Your task to perform on an android device: Add "energizer triple a" to the cart on newegg.com, then select checkout. Image 0: 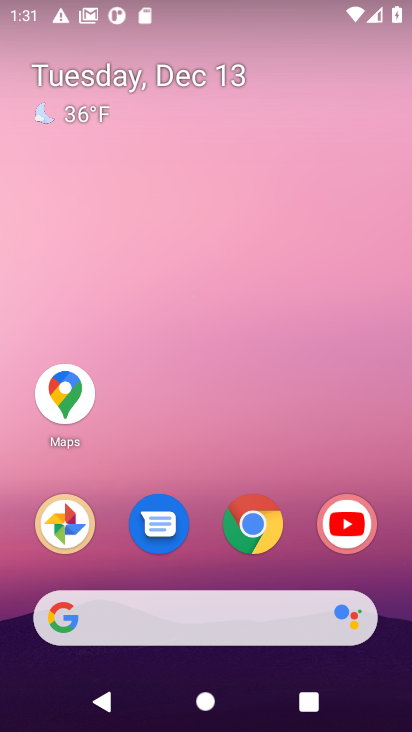
Step 0: click (248, 529)
Your task to perform on an android device: Add "energizer triple a" to the cart on newegg.com, then select checkout. Image 1: 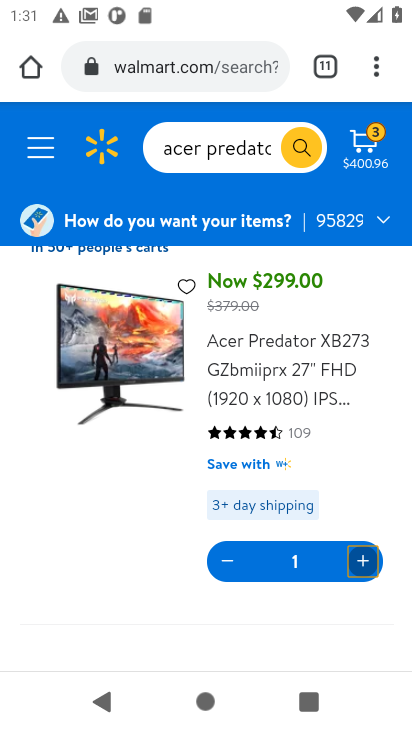
Step 1: click (191, 68)
Your task to perform on an android device: Add "energizer triple a" to the cart on newegg.com, then select checkout. Image 2: 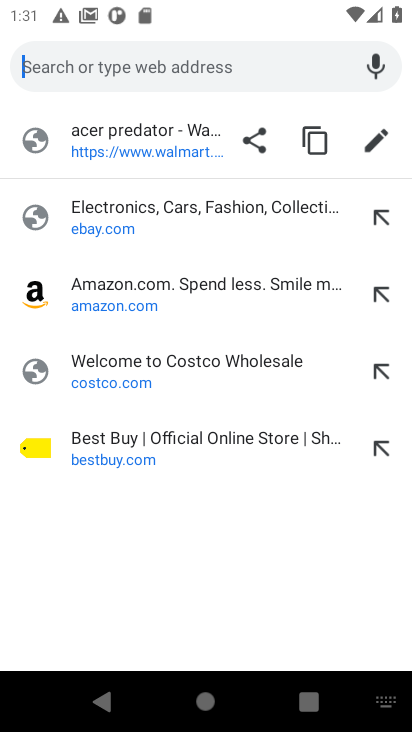
Step 2: type "newegg.com"
Your task to perform on an android device: Add "energizer triple a" to the cart on newegg.com, then select checkout. Image 3: 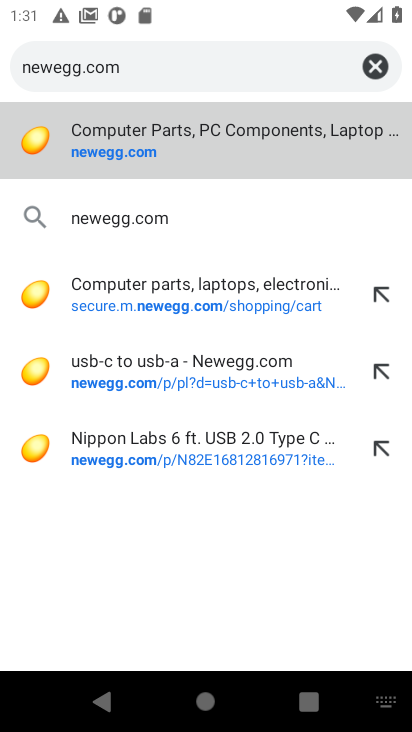
Step 3: click (133, 151)
Your task to perform on an android device: Add "energizer triple a" to the cart on newegg.com, then select checkout. Image 4: 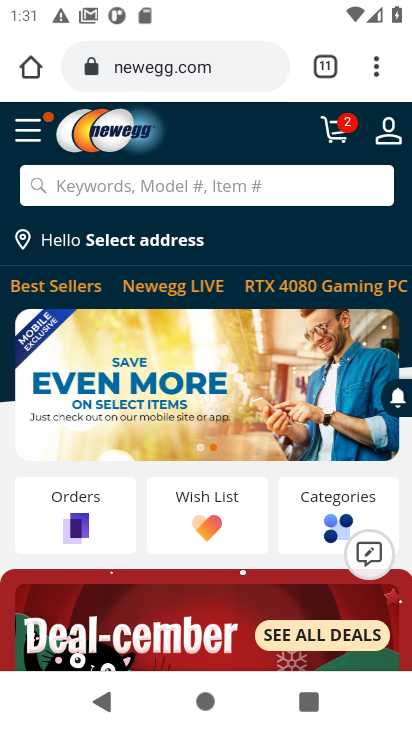
Step 4: click (72, 194)
Your task to perform on an android device: Add "energizer triple a" to the cart on newegg.com, then select checkout. Image 5: 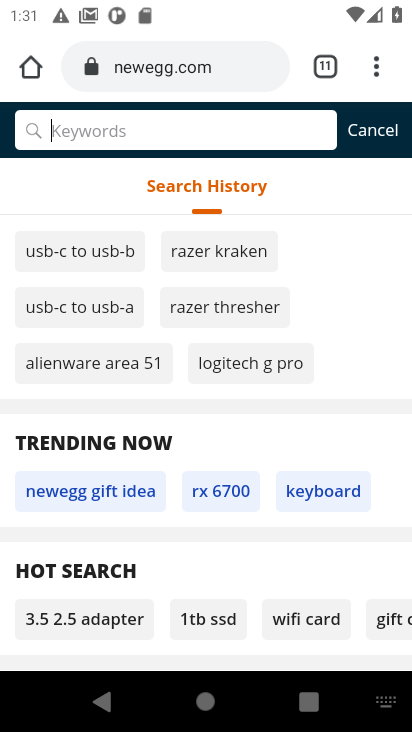
Step 5: type "energizer triple a"
Your task to perform on an android device: Add "energizer triple a" to the cart on newegg.com, then select checkout. Image 6: 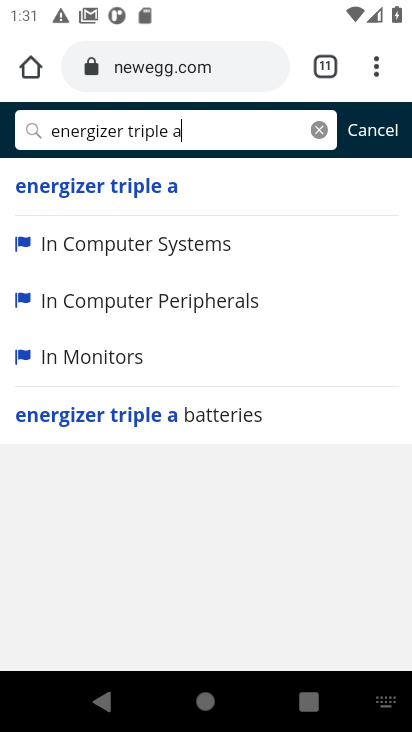
Step 6: click (117, 195)
Your task to perform on an android device: Add "energizer triple a" to the cart on newegg.com, then select checkout. Image 7: 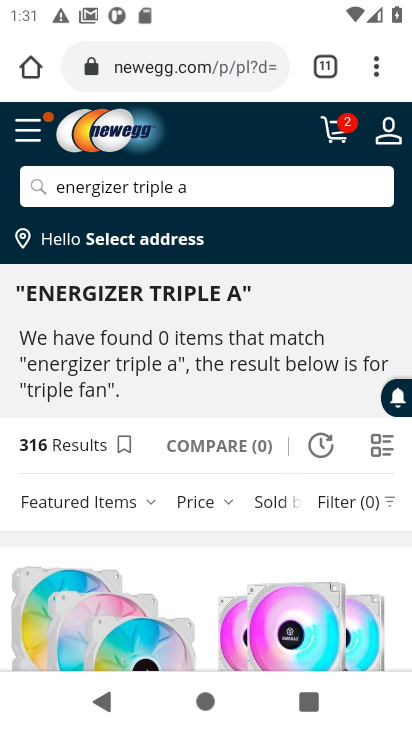
Step 7: task complete